Your task to perform on an android device: Open notification settings Image 0: 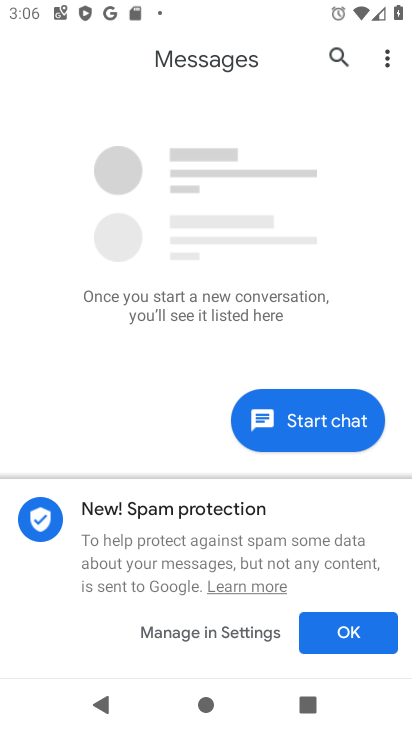
Step 0: click (126, 544)
Your task to perform on an android device: Open notification settings Image 1: 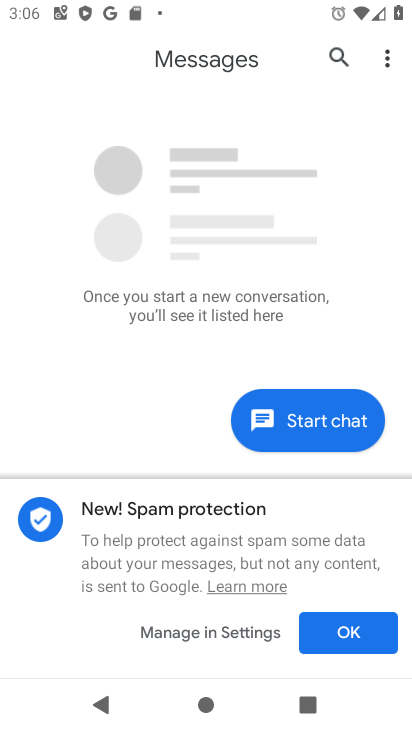
Step 1: press home button
Your task to perform on an android device: Open notification settings Image 2: 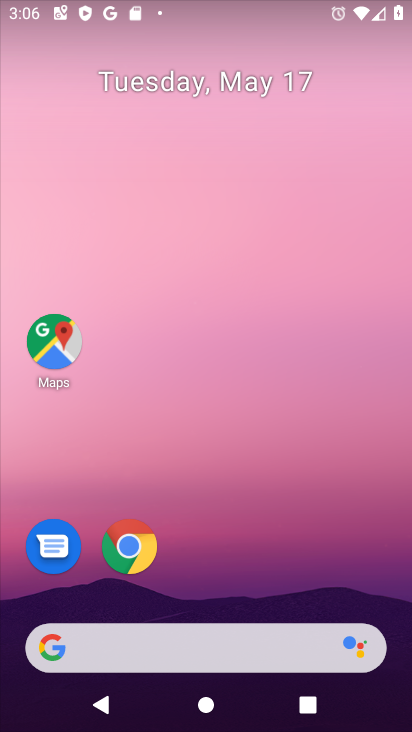
Step 2: drag from (396, 506) to (386, 286)
Your task to perform on an android device: Open notification settings Image 3: 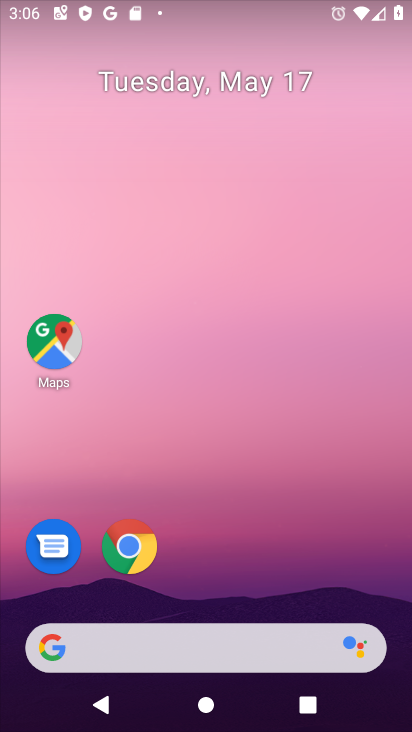
Step 3: drag from (396, 628) to (379, 297)
Your task to perform on an android device: Open notification settings Image 4: 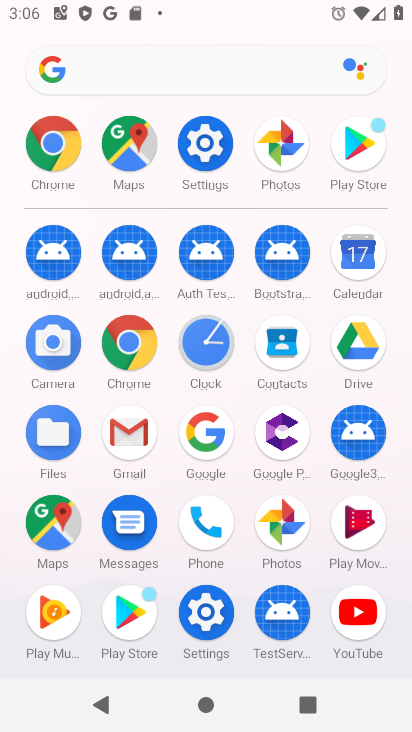
Step 4: click (196, 138)
Your task to perform on an android device: Open notification settings Image 5: 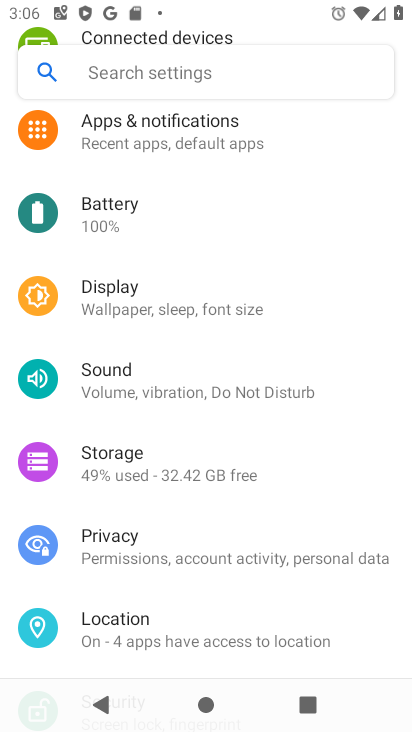
Step 5: click (113, 125)
Your task to perform on an android device: Open notification settings Image 6: 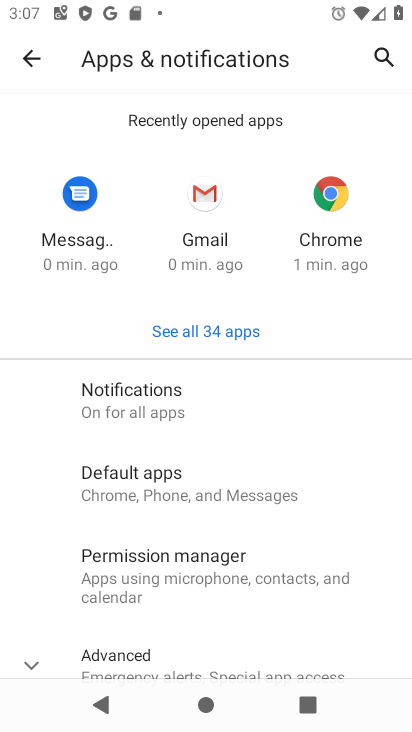
Step 6: task complete